Your task to perform on an android device: Open Maps and search for coffee Image 0: 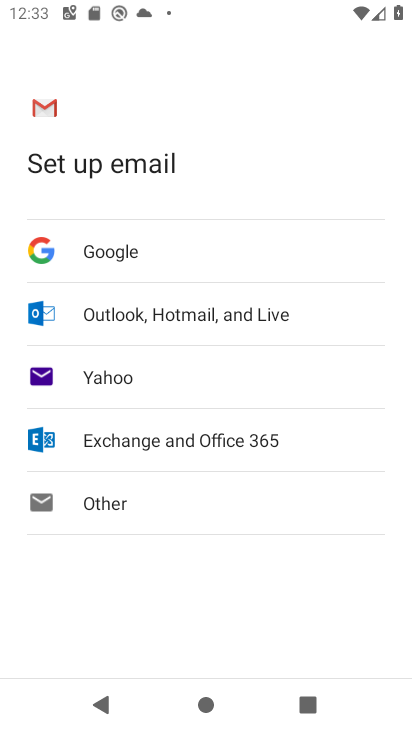
Step 0: press home button
Your task to perform on an android device: Open Maps and search for coffee Image 1: 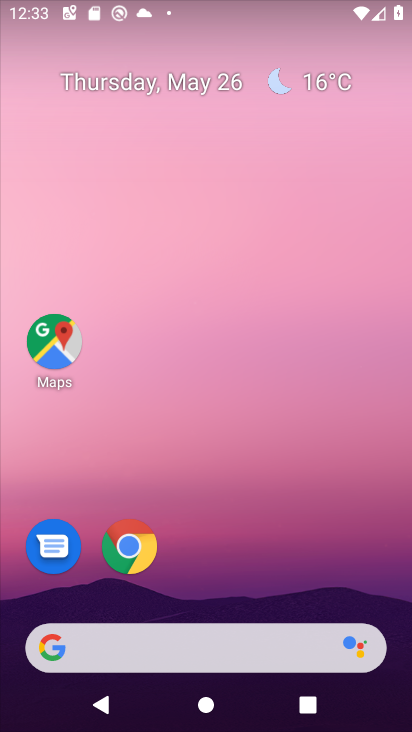
Step 1: click (51, 343)
Your task to perform on an android device: Open Maps and search for coffee Image 2: 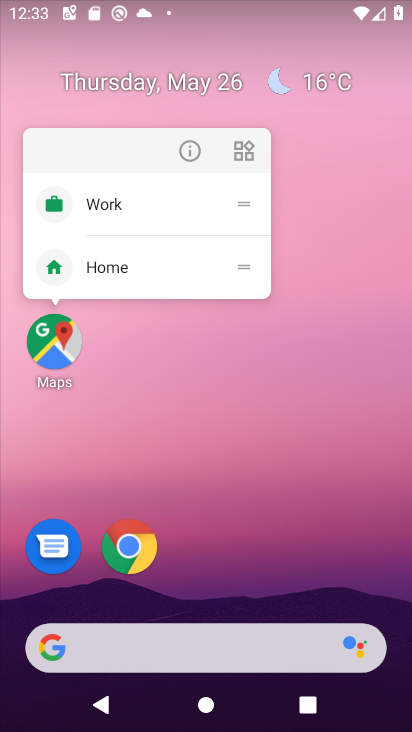
Step 2: click (189, 150)
Your task to perform on an android device: Open Maps and search for coffee Image 3: 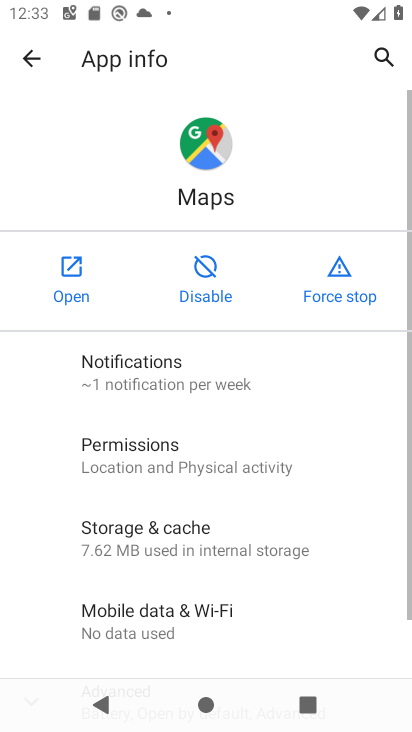
Step 3: click (70, 293)
Your task to perform on an android device: Open Maps and search for coffee Image 4: 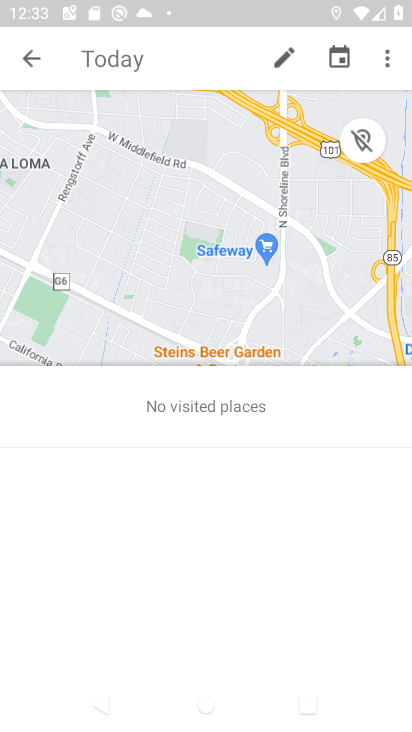
Step 4: click (27, 61)
Your task to perform on an android device: Open Maps and search for coffee Image 5: 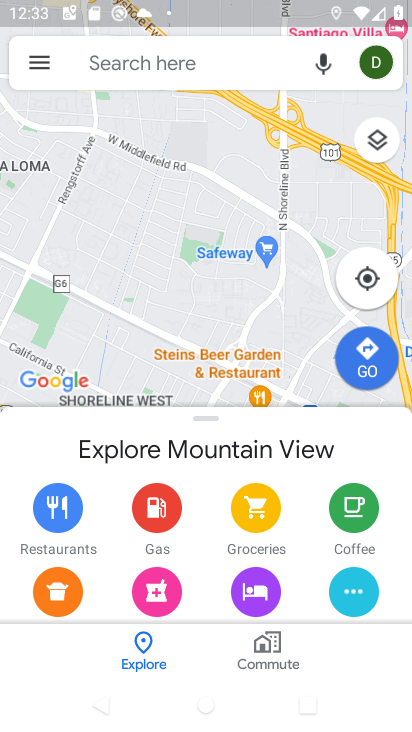
Step 5: click (132, 63)
Your task to perform on an android device: Open Maps and search for coffee Image 6: 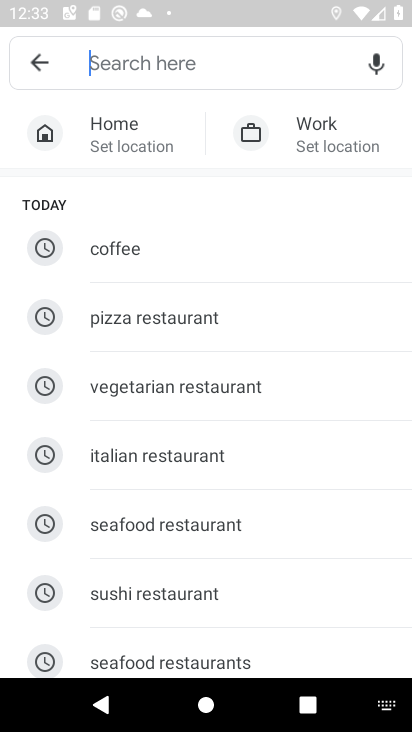
Step 6: type "coffee"
Your task to perform on an android device: Open Maps and search for coffee Image 7: 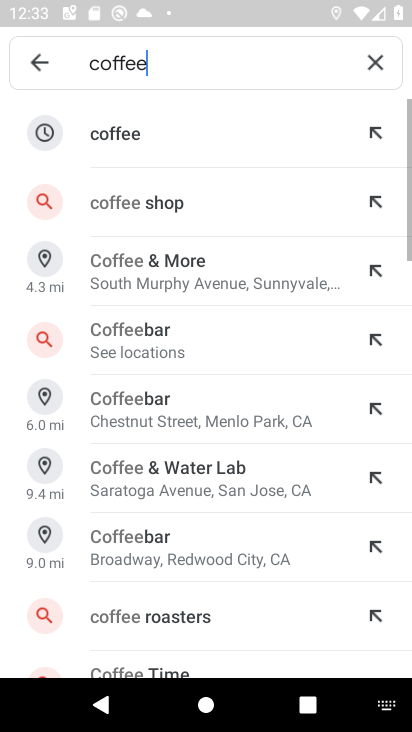
Step 7: click (142, 133)
Your task to perform on an android device: Open Maps and search for coffee Image 8: 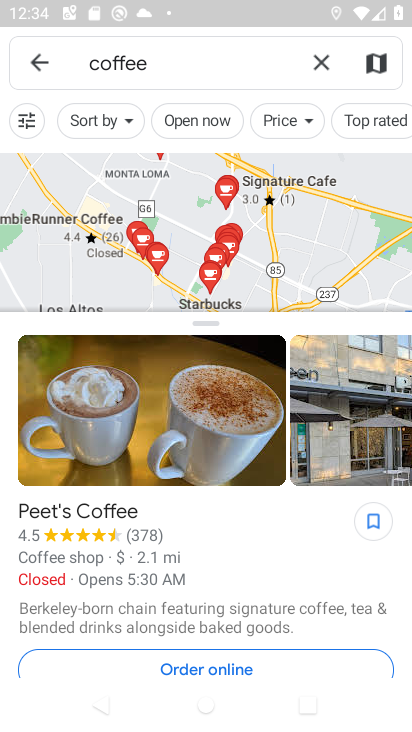
Step 8: task complete